Your task to perform on an android device: turn pop-ups on in chrome Image 0: 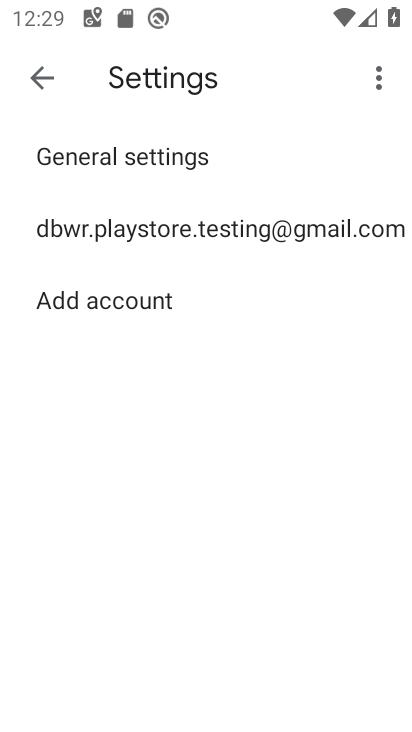
Step 0: press home button
Your task to perform on an android device: turn pop-ups on in chrome Image 1: 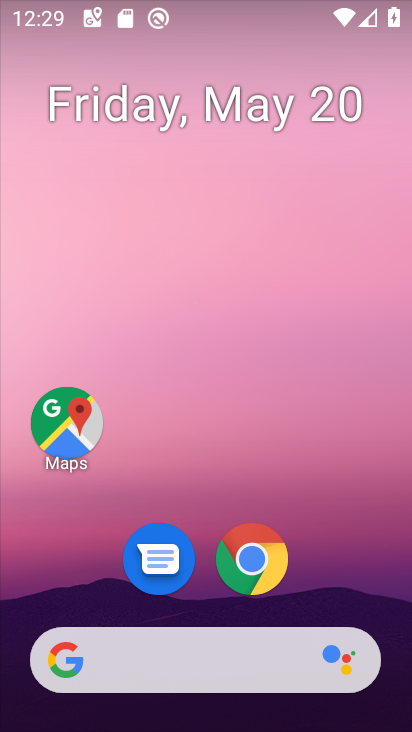
Step 1: click (236, 572)
Your task to perform on an android device: turn pop-ups on in chrome Image 2: 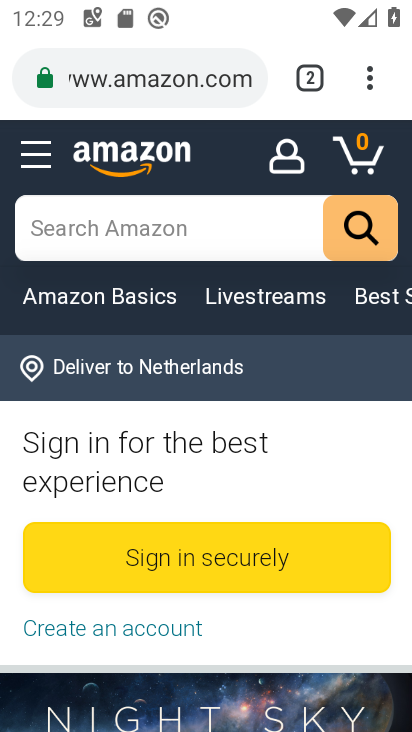
Step 2: click (368, 62)
Your task to perform on an android device: turn pop-ups on in chrome Image 3: 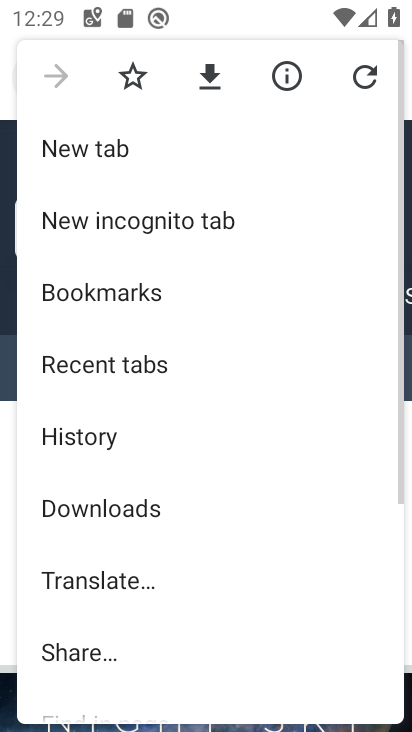
Step 3: click (368, 62)
Your task to perform on an android device: turn pop-ups on in chrome Image 4: 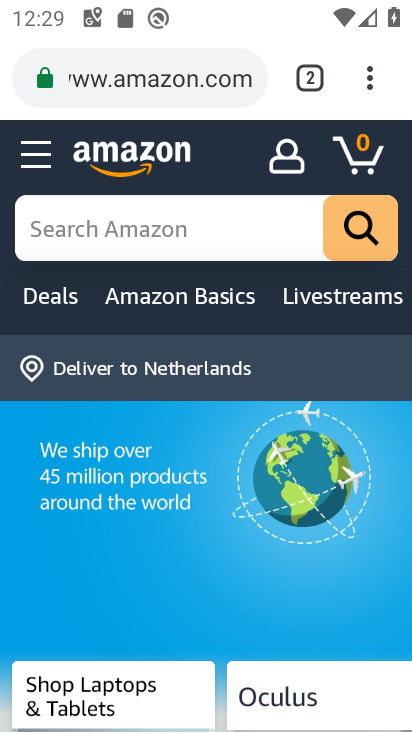
Step 4: drag from (368, 63) to (182, 626)
Your task to perform on an android device: turn pop-ups on in chrome Image 5: 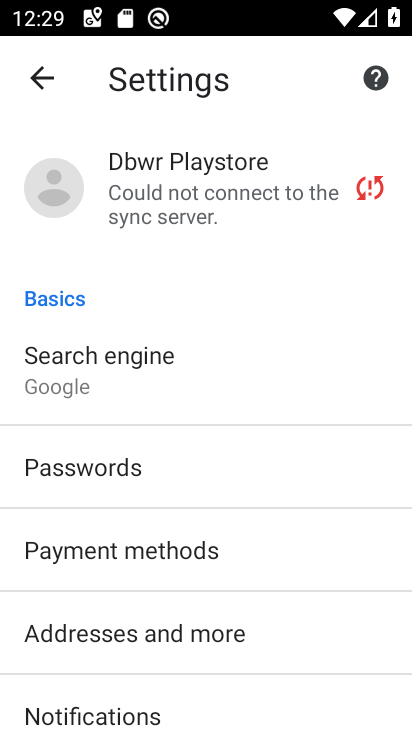
Step 5: drag from (235, 683) to (169, 254)
Your task to perform on an android device: turn pop-ups on in chrome Image 6: 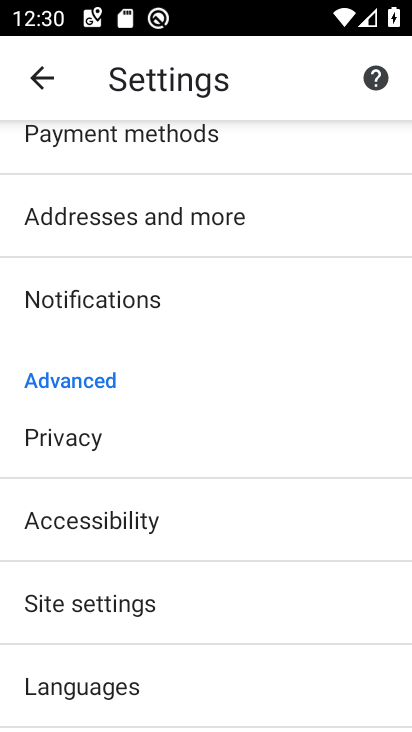
Step 6: click (281, 602)
Your task to perform on an android device: turn pop-ups on in chrome Image 7: 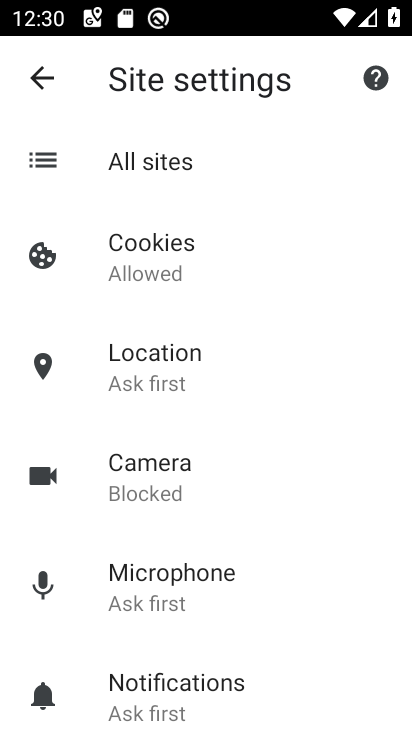
Step 7: drag from (295, 664) to (235, 176)
Your task to perform on an android device: turn pop-ups on in chrome Image 8: 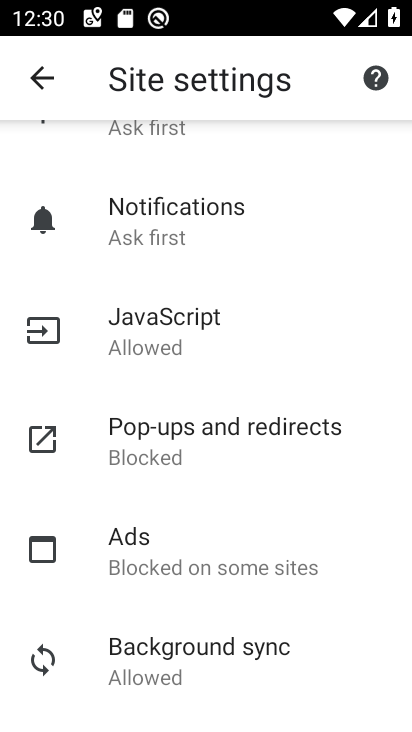
Step 8: click (268, 413)
Your task to perform on an android device: turn pop-ups on in chrome Image 9: 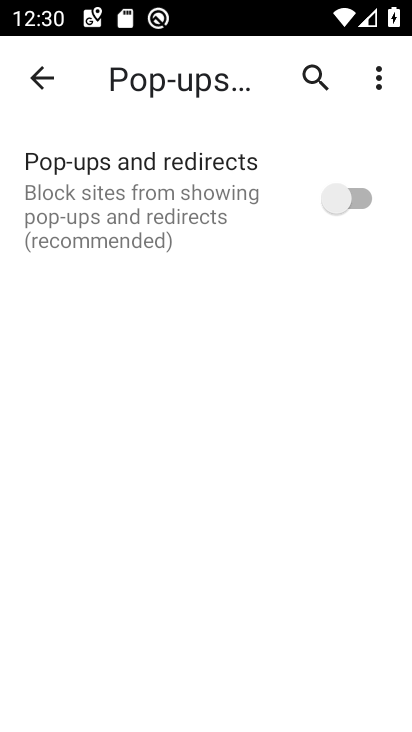
Step 9: click (349, 193)
Your task to perform on an android device: turn pop-ups on in chrome Image 10: 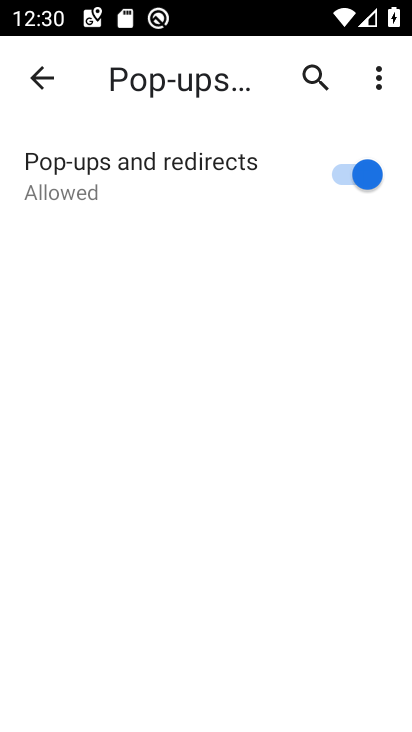
Step 10: task complete